Your task to perform on an android device: allow cookies in the chrome app Image 0: 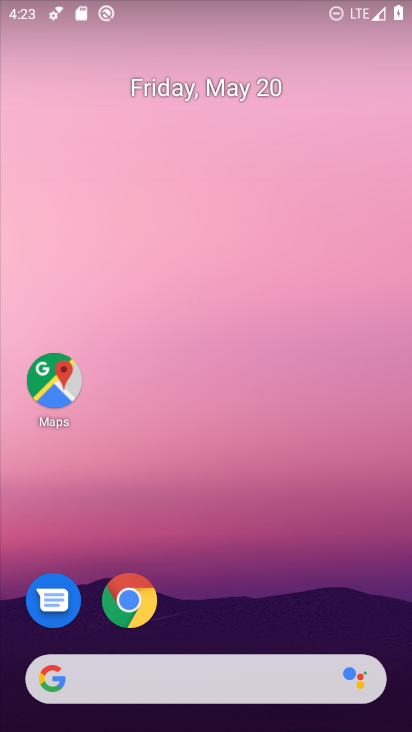
Step 0: click (132, 595)
Your task to perform on an android device: allow cookies in the chrome app Image 1: 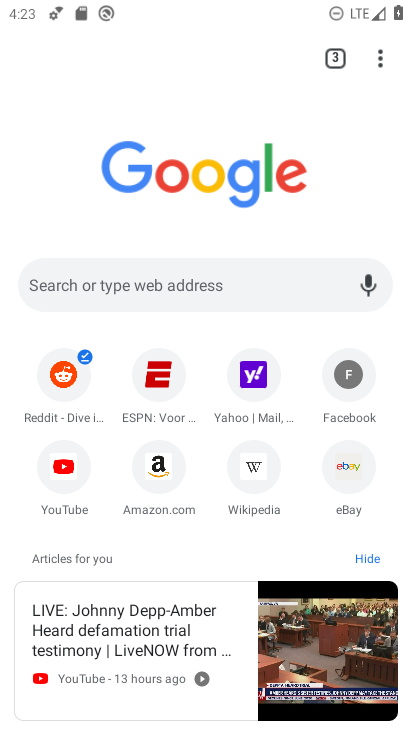
Step 1: drag from (386, 51) to (183, 499)
Your task to perform on an android device: allow cookies in the chrome app Image 2: 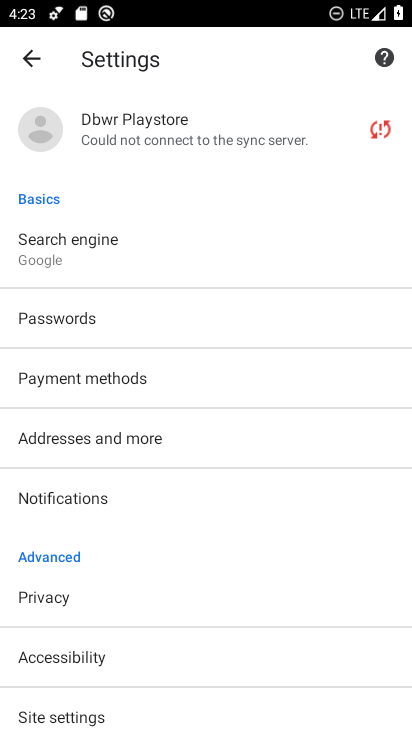
Step 2: drag from (88, 706) to (179, 370)
Your task to perform on an android device: allow cookies in the chrome app Image 3: 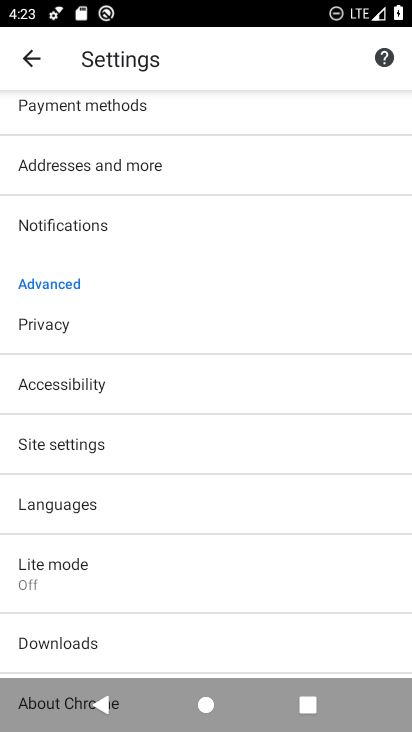
Step 3: click (67, 444)
Your task to perform on an android device: allow cookies in the chrome app Image 4: 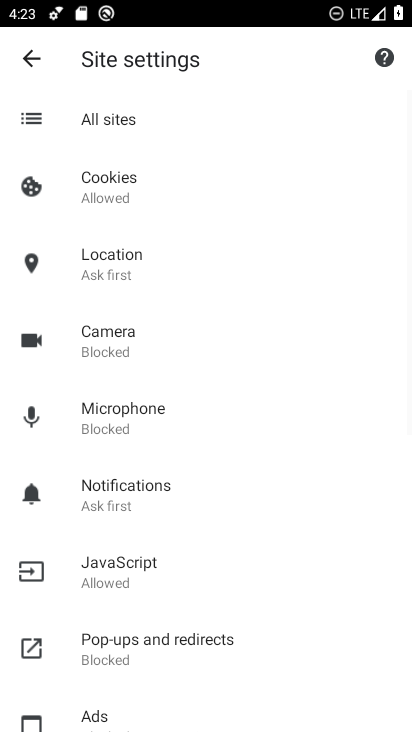
Step 4: click (148, 181)
Your task to perform on an android device: allow cookies in the chrome app Image 5: 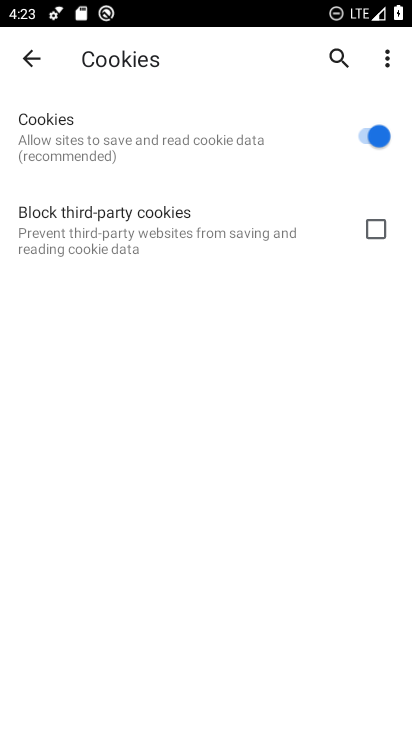
Step 5: task complete